Your task to perform on an android device: open app "Google Pay: Save, Pay, Manage" Image 0: 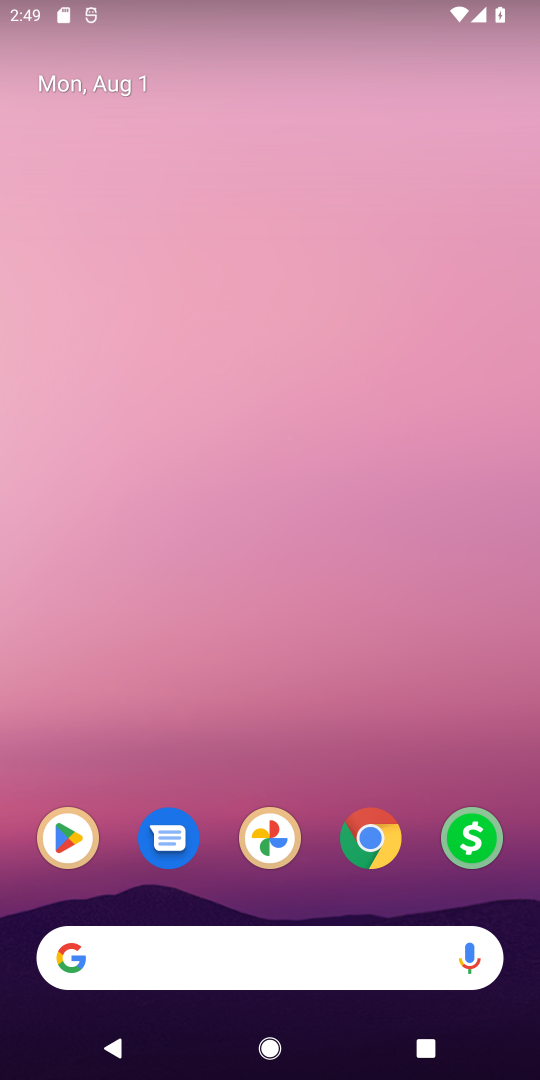
Step 0: click (81, 859)
Your task to perform on an android device: open app "Google Pay: Save, Pay, Manage" Image 1: 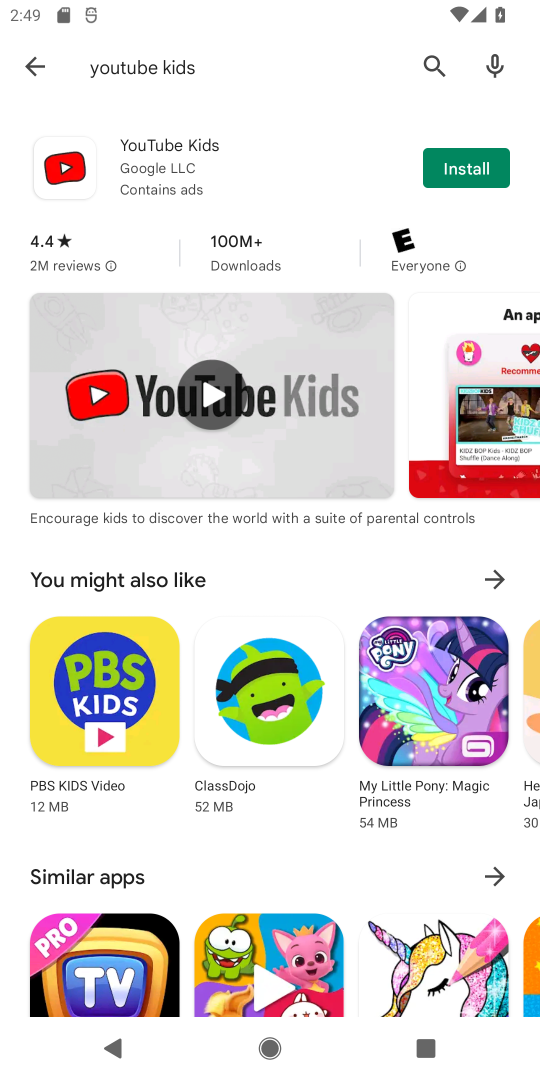
Step 1: click (432, 64)
Your task to perform on an android device: open app "Google Pay: Save, Pay, Manage" Image 2: 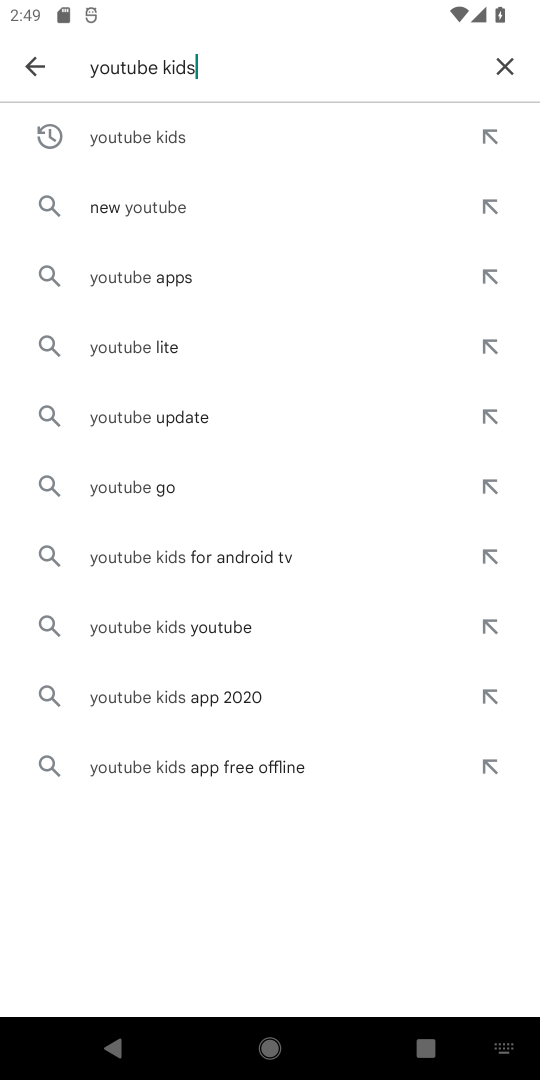
Step 2: click (496, 64)
Your task to perform on an android device: open app "Google Pay: Save, Pay, Manage" Image 3: 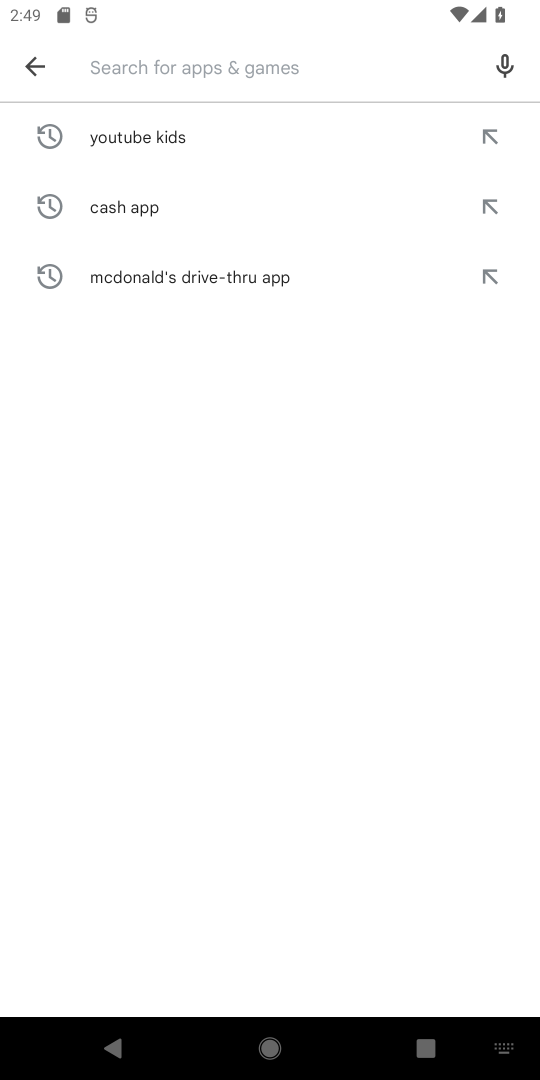
Step 3: type "Google Pay: Save, Pay, Manage"
Your task to perform on an android device: open app "Google Pay: Save, Pay, Manage" Image 4: 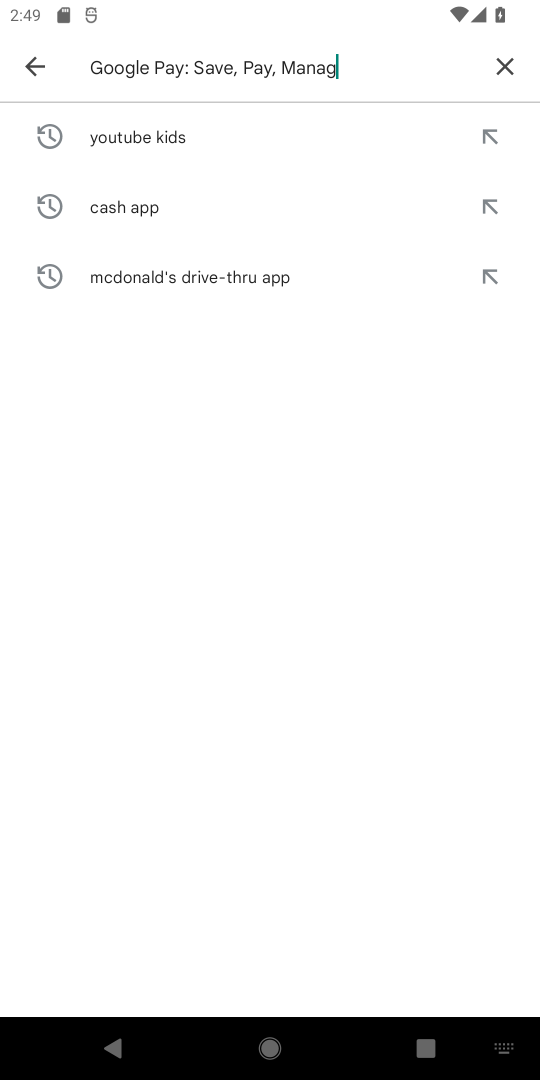
Step 4: type ""
Your task to perform on an android device: open app "Google Pay: Save, Pay, Manage" Image 5: 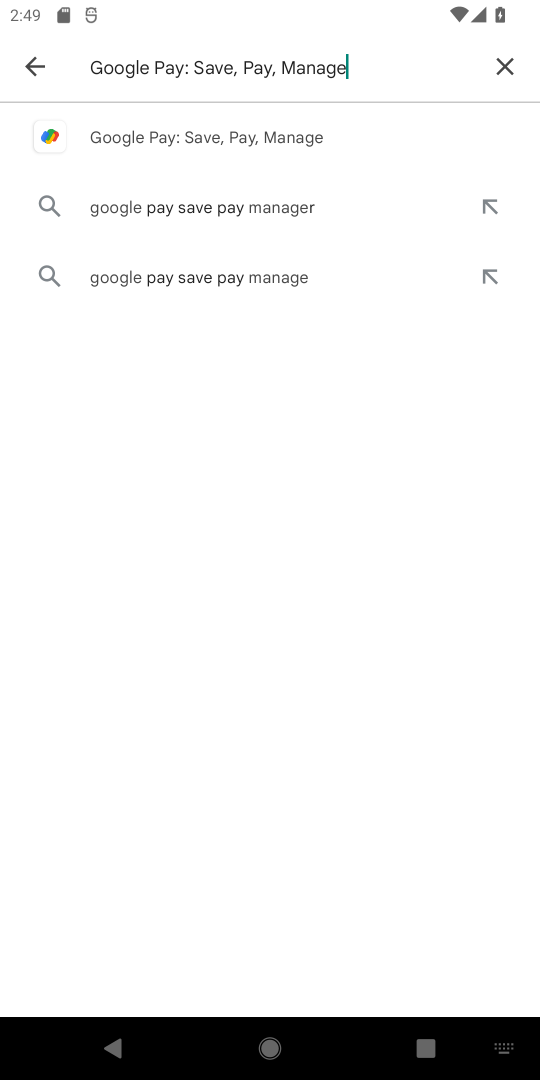
Step 5: click (353, 141)
Your task to perform on an android device: open app "Google Pay: Save, Pay, Manage" Image 6: 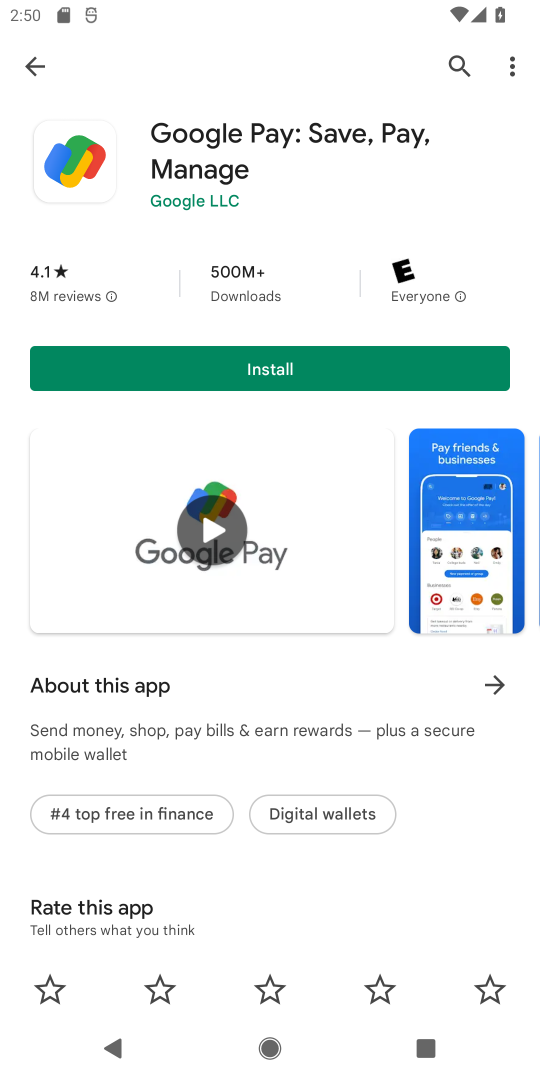
Step 6: task complete